Your task to perform on an android device: toggle translation in the chrome app Image 0: 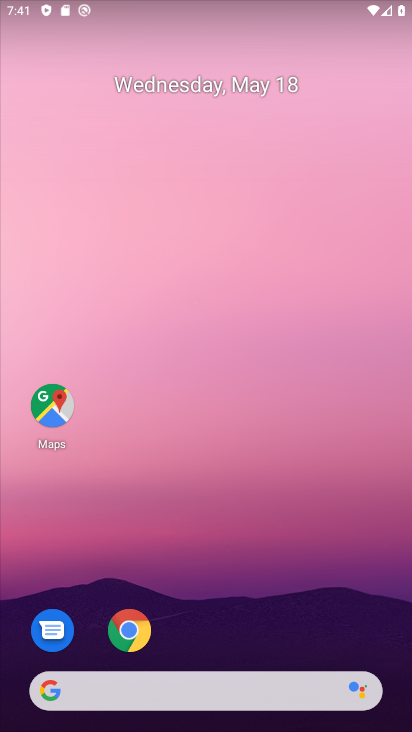
Step 0: click (134, 632)
Your task to perform on an android device: toggle translation in the chrome app Image 1: 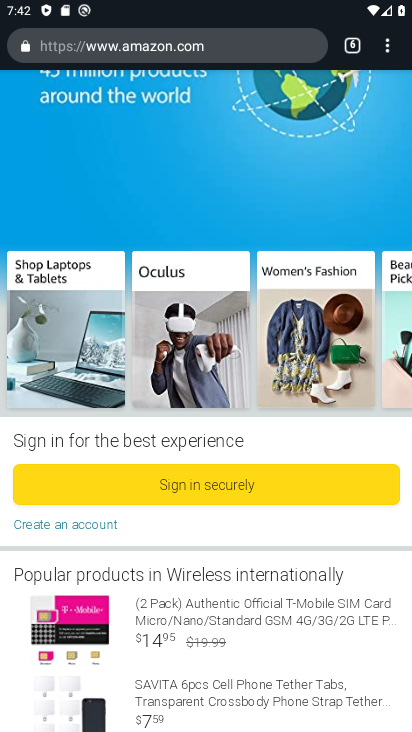
Step 1: click (389, 45)
Your task to perform on an android device: toggle translation in the chrome app Image 2: 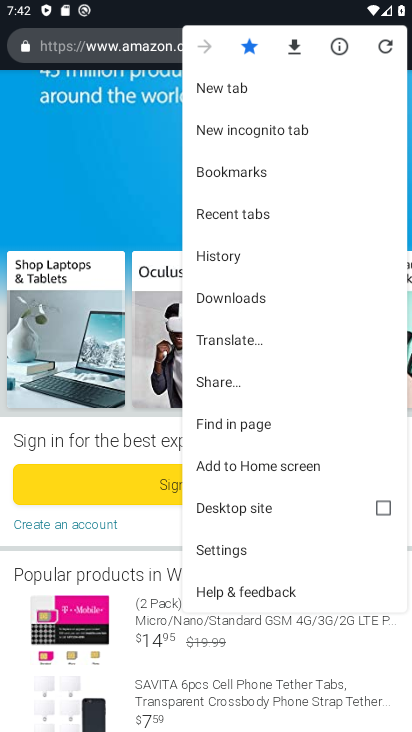
Step 2: click (234, 546)
Your task to perform on an android device: toggle translation in the chrome app Image 3: 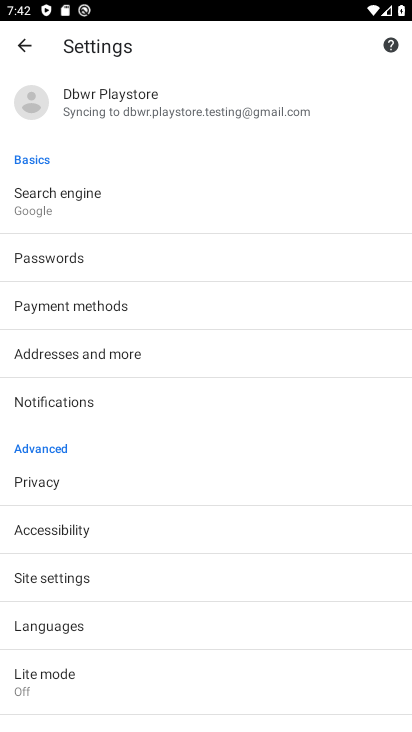
Step 3: click (61, 621)
Your task to perform on an android device: toggle translation in the chrome app Image 4: 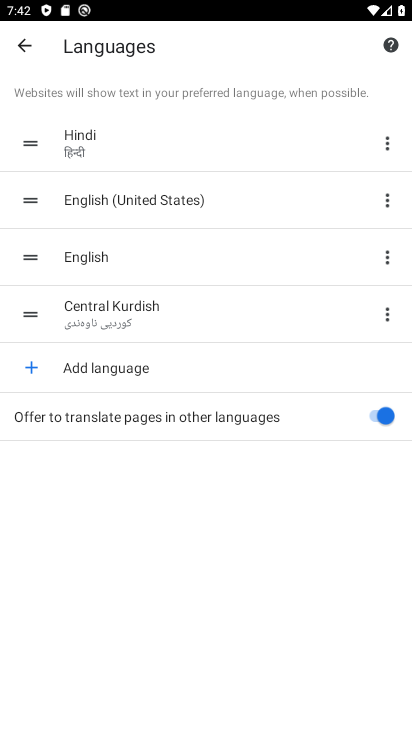
Step 4: click (389, 411)
Your task to perform on an android device: toggle translation in the chrome app Image 5: 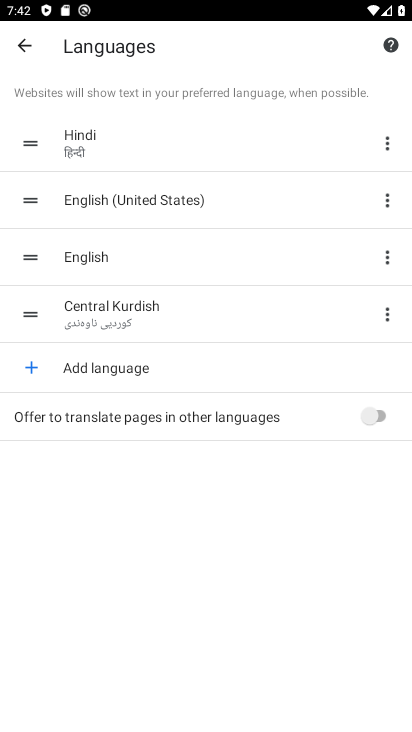
Step 5: task complete